Your task to perform on an android device: turn off airplane mode Image 0: 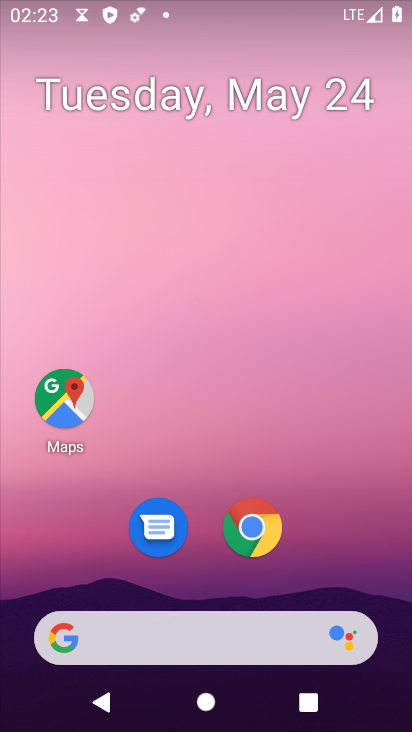
Step 0: press home button
Your task to perform on an android device: turn off airplane mode Image 1: 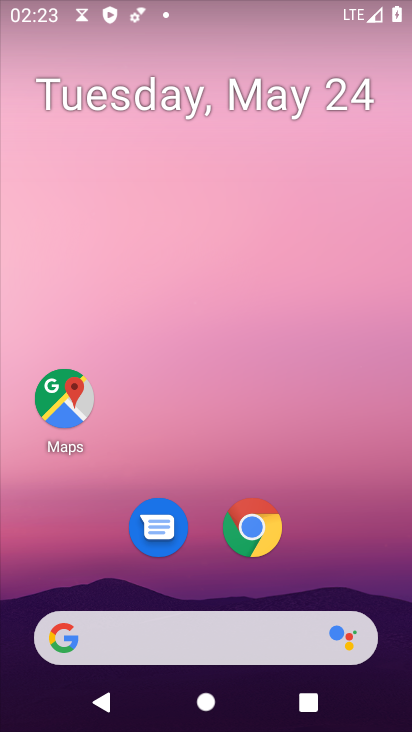
Step 1: drag from (189, 663) to (352, 113)
Your task to perform on an android device: turn off airplane mode Image 2: 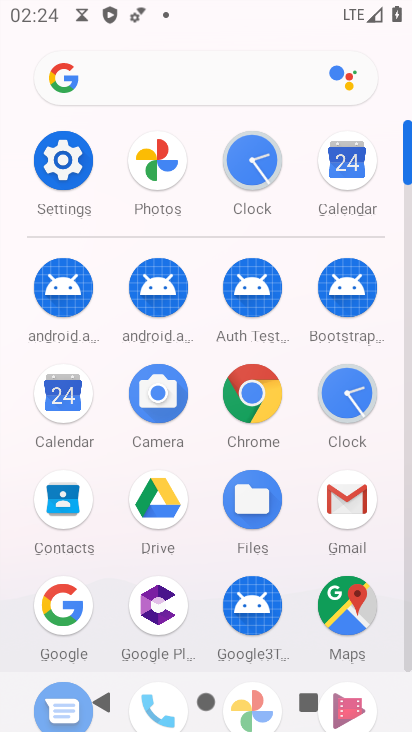
Step 2: click (68, 177)
Your task to perform on an android device: turn off airplane mode Image 3: 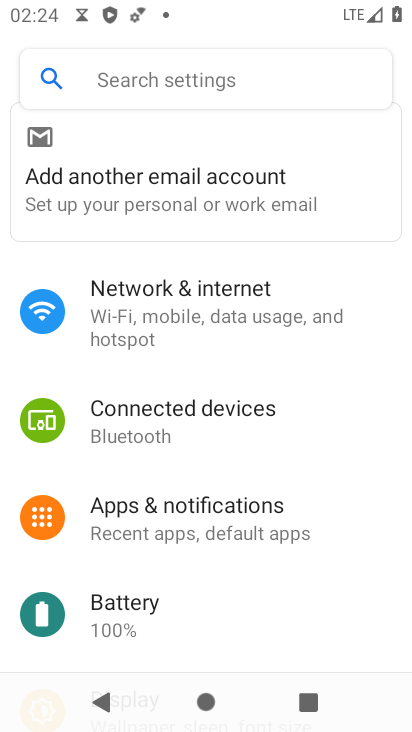
Step 3: click (205, 301)
Your task to perform on an android device: turn off airplane mode Image 4: 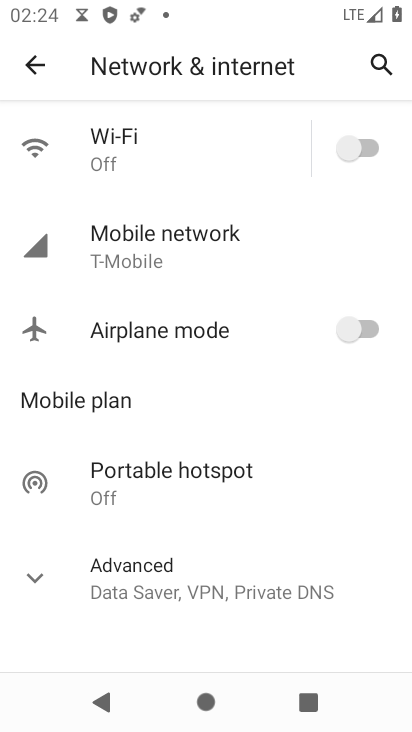
Step 4: task complete